Your task to perform on an android device: turn off sleep mode Image 0: 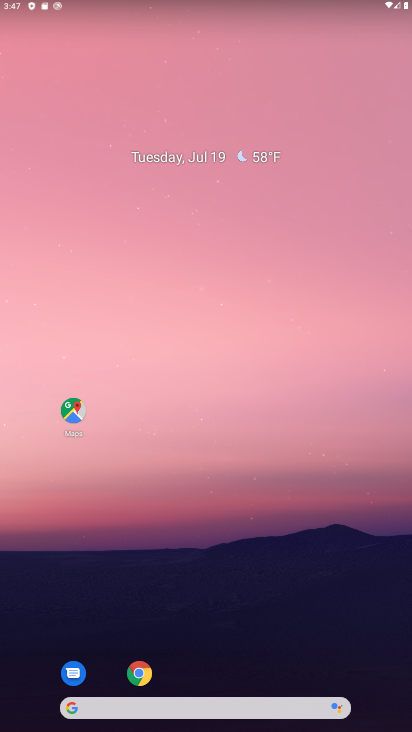
Step 0: drag from (344, 3) to (242, 536)
Your task to perform on an android device: turn off sleep mode Image 1: 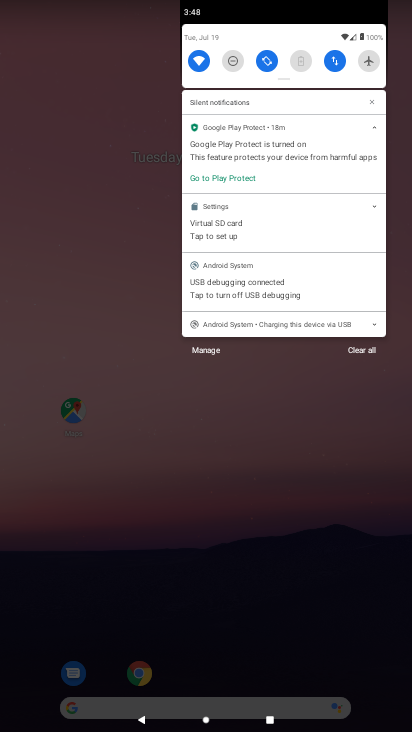
Step 1: drag from (288, 74) to (229, 524)
Your task to perform on an android device: turn off sleep mode Image 2: 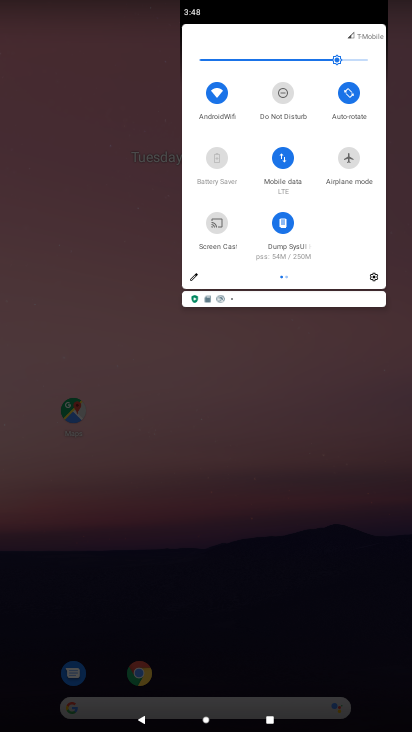
Step 2: click (192, 277)
Your task to perform on an android device: turn off sleep mode Image 3: 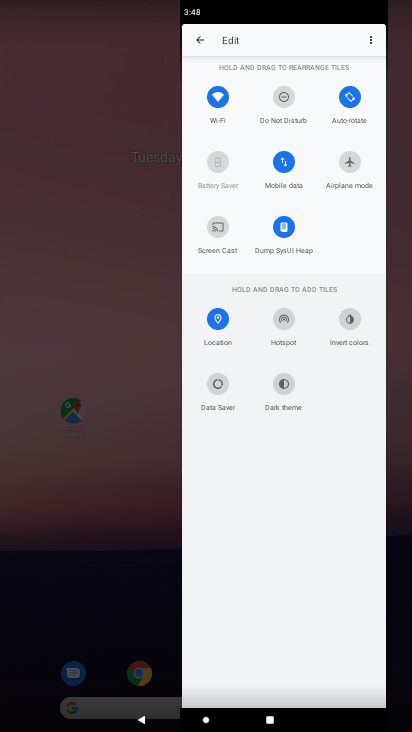
Step 3: task complete